Your task to perform on an android device: Open network settings Image 0: 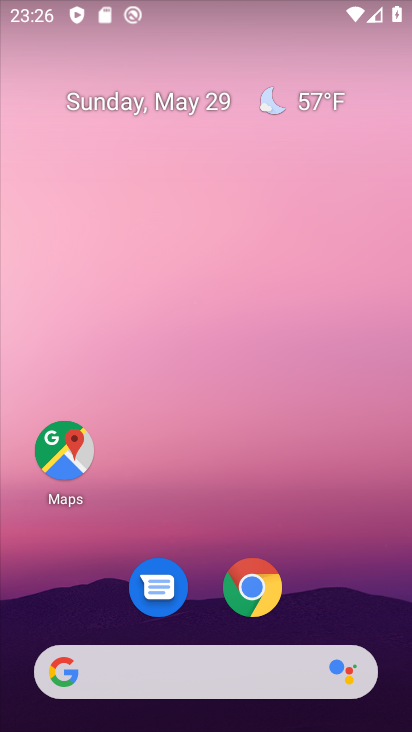
Step 0: drag from (317, 585) to (276, 186)
Your task to perform on an android device: Open network settings Image 1: 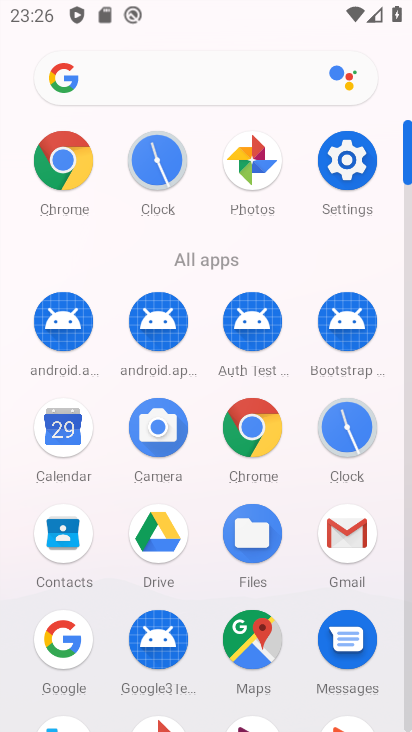
Step 1: click (349, 166)
Your task to perform on an android device: Open network settings Image 2: 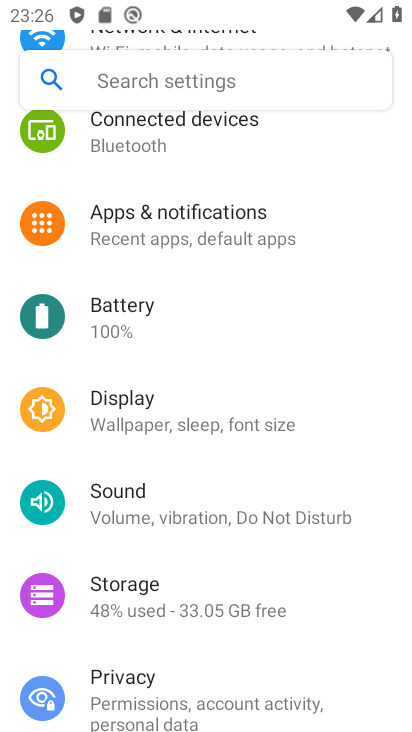
Step 2: drag from (273, 224) to (301, 590)
Your task to perform on an android device: Open network settings Image 3: 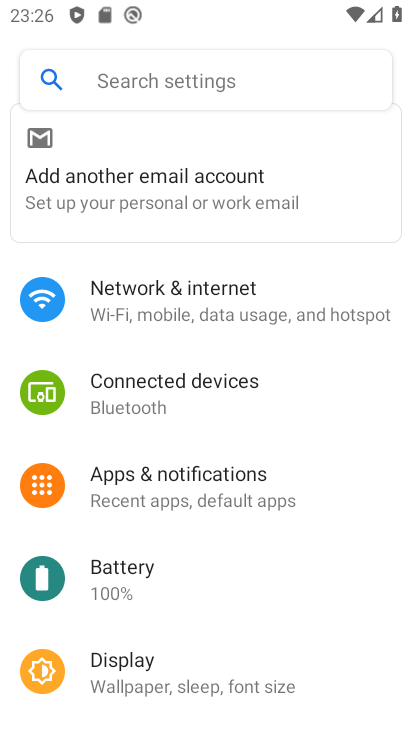
Step 3: click (243, 303)
Your task to perform on an android device: Open network settings Image 4: 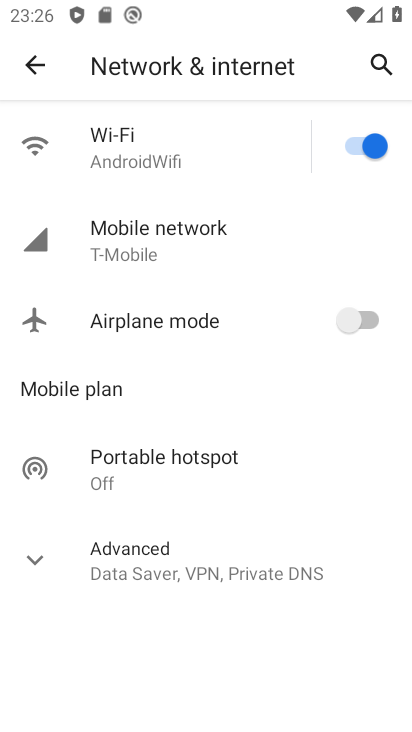
Step 4: task complete